Your task to perform on an android device: open wifi settings Image 0: 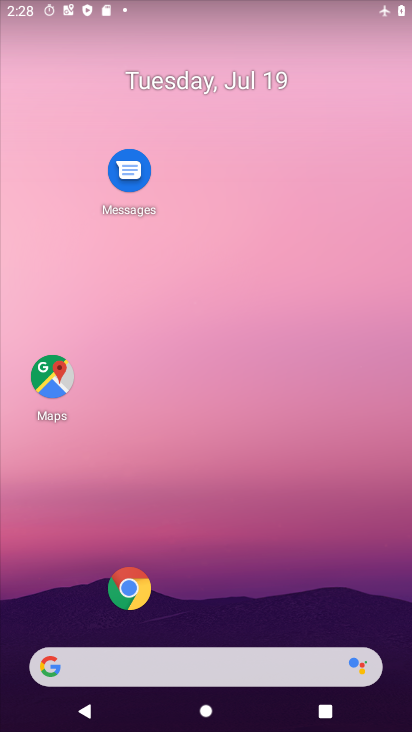
Step 0: drag from (63, 623) to (279, 43)
Your task to perform on an android device: open wifi settings Image 1: 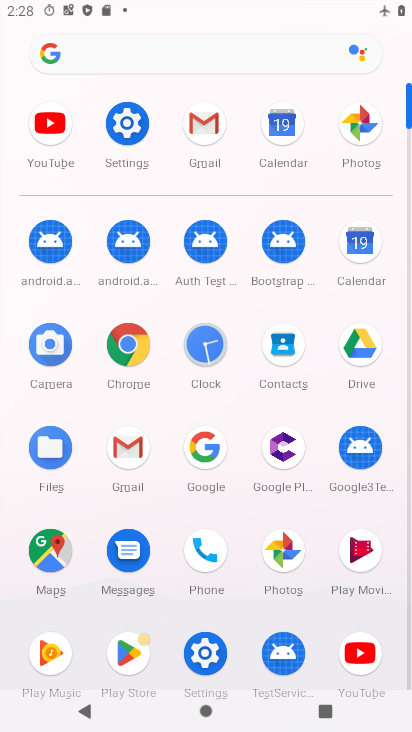
Step 1: click (204, 664)
Your task to perform on an android device: open wifi settings Image 2: 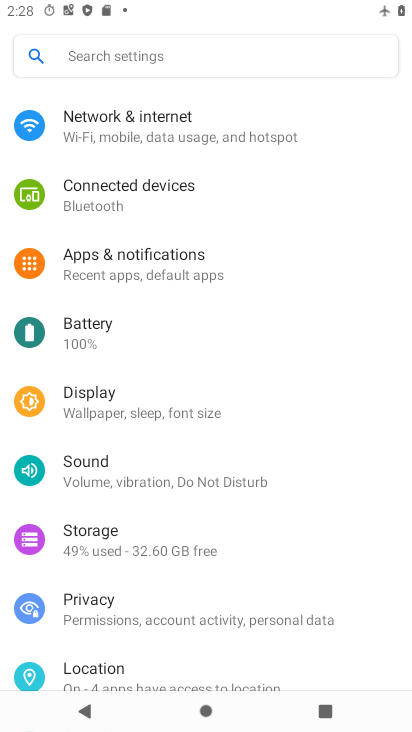
Step 2: click (82, 115)
Your task to perform on an android device: open wifi settings Image 3: 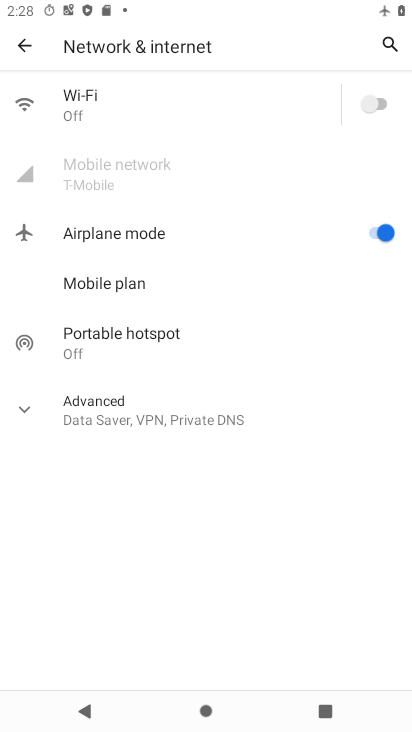
Step 3: click (383, 108)
Your task to perform on an android device: open wifi settings Image 4: 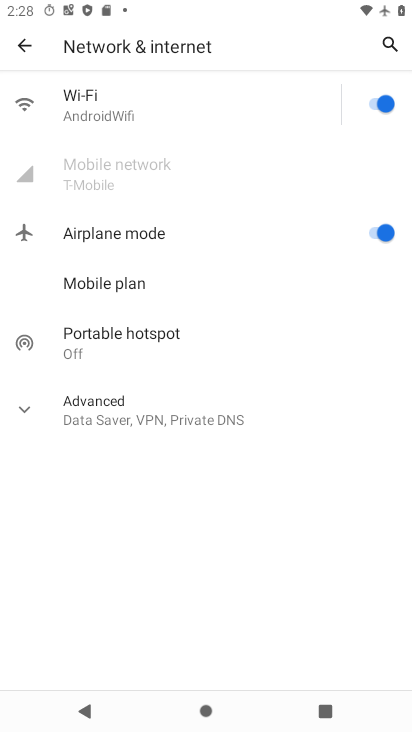
Step 4: task complete